Your task to perform on an android device: Open Android settings Image 0: 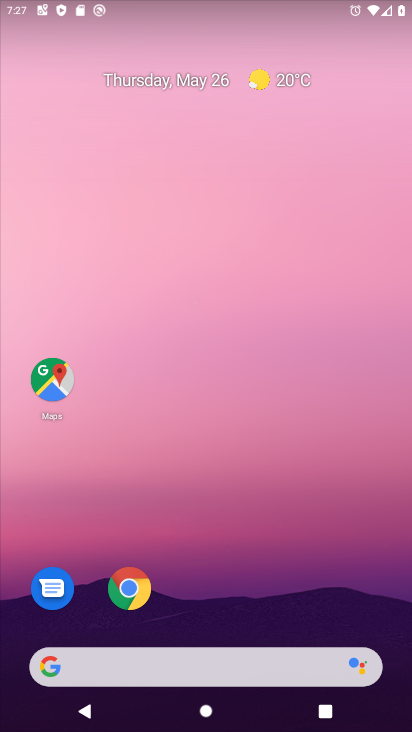
Step 0: drag from (376, 636) to (303, 145)
Your task to perform on an android device: Open Android settings Image 1: 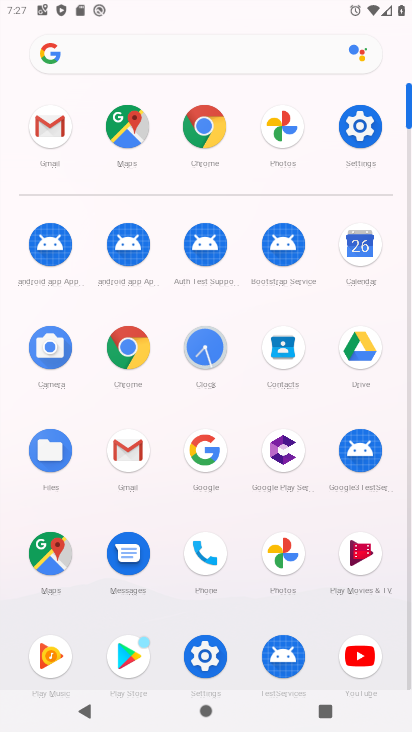
Step 1: click (346, 135)
Your task to perform on an android device: Open Android settings Image 2: 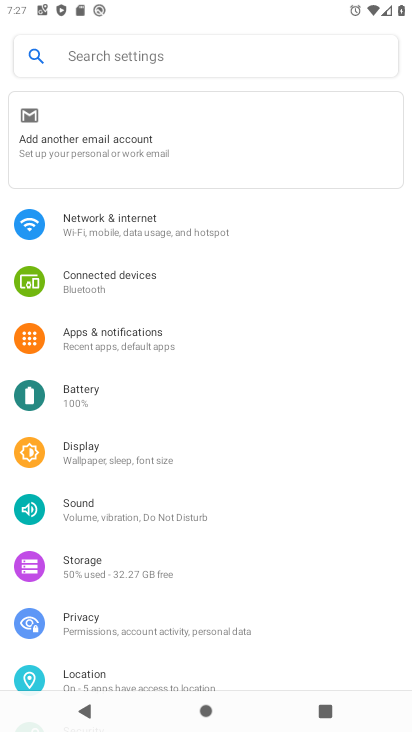
Step 2: drag from (127, 593) to (171, 132)
Your task to perform on an android device: Open Android settings Image 3: 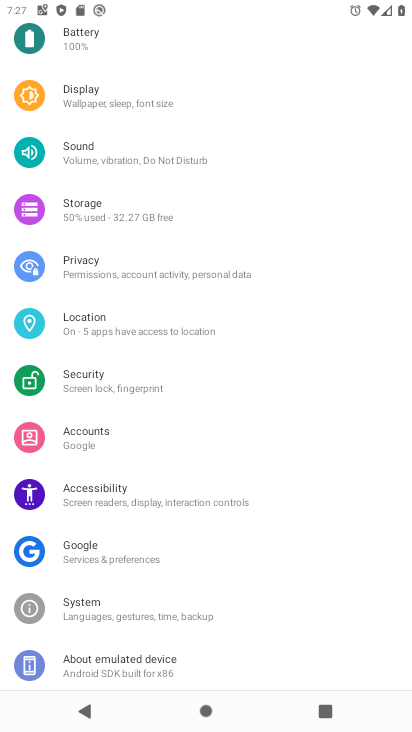
Step 3: click (151, 673)
Your task to perform on an android device: Open Android settings Image 4: 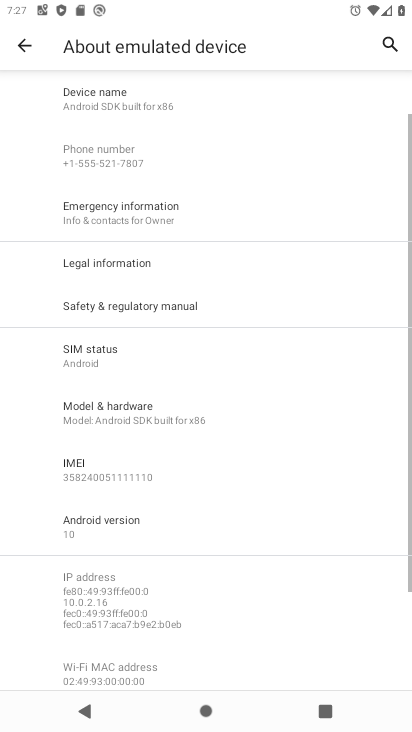
Step 4: click (160, 552)
Your task to perform on an android device: Open Android settings Image 5: 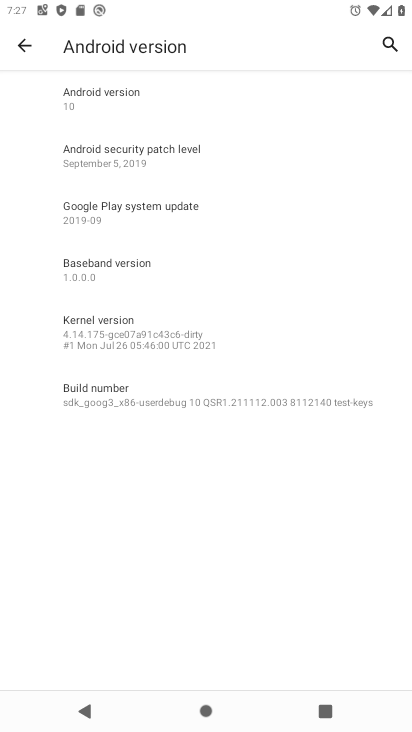
Step 5: task complete